Your task to perform on an android device: Open my contact list Image 0: 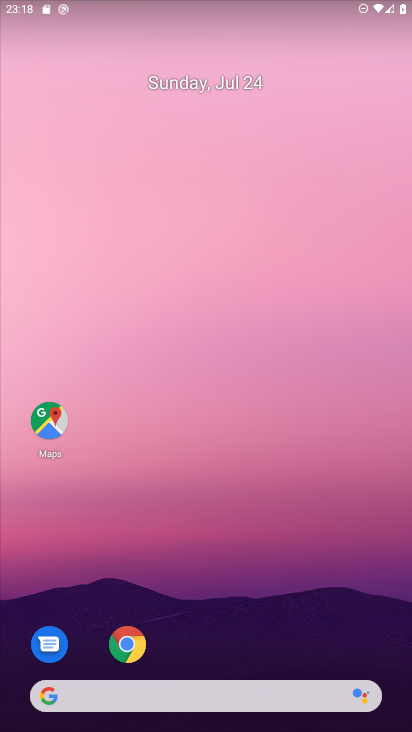
Step 0: drag from (379, 660) to (341, 177)
Your task to perform on an android device: Open my contact list Image 1: 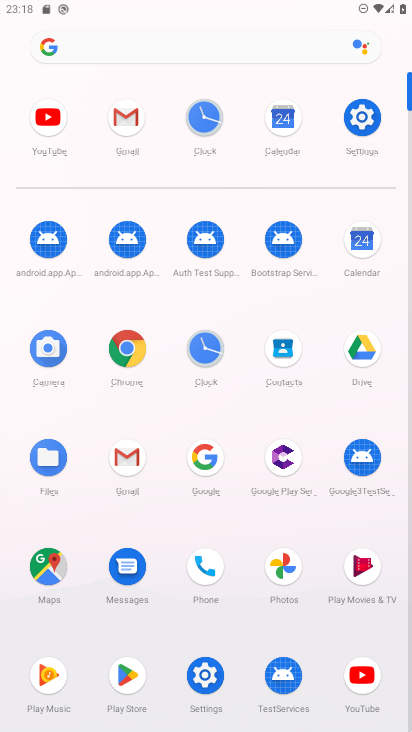
Step 1: click (276, 351)
Your task to perform on an android device: Open my contact list Image 2: 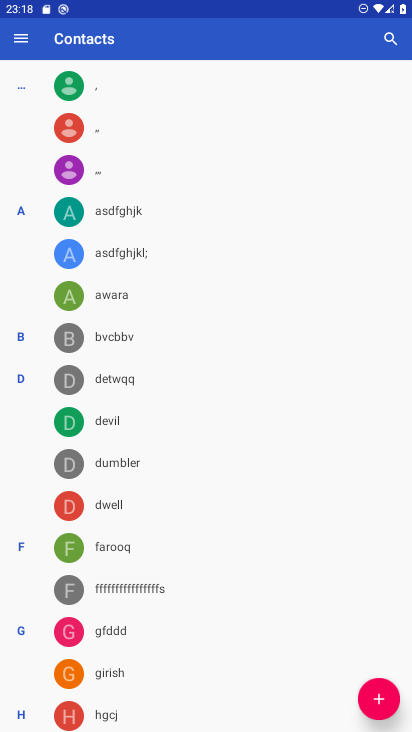
Step 2: task complete